Your task to perform on an android device: toggle translation in the chrome app Image 0: 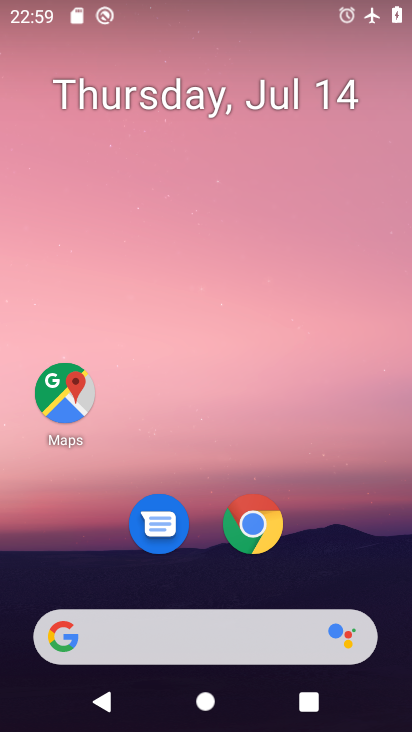
Step 0: drag from (310, 563) to (324, 225)
Your task to perform on an android device: toggle translation in the chrome app Image 1: 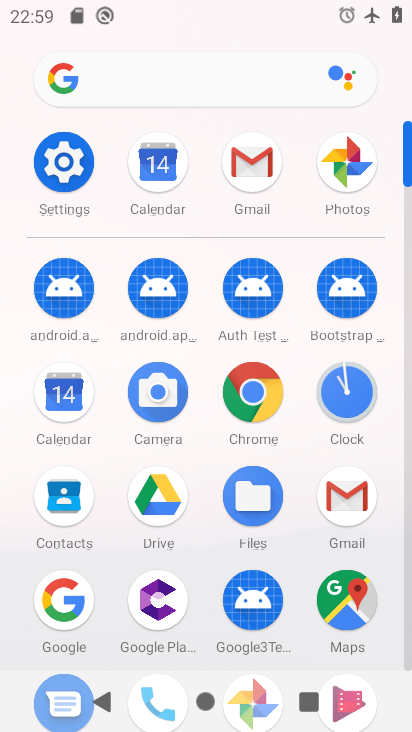
Step 1: click (259, 389)
Your task to perform on an android device: toggle translation in the chrome app Image 2: 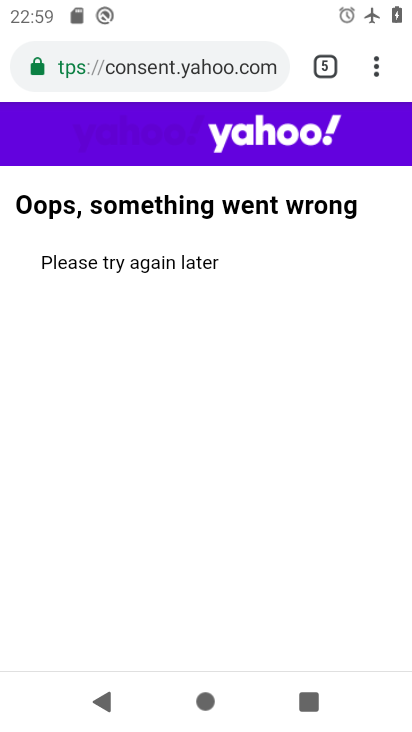
Step 2: click (379, 66)
Your task to perform on an android device: toggle translation in the chrome app Image 3: 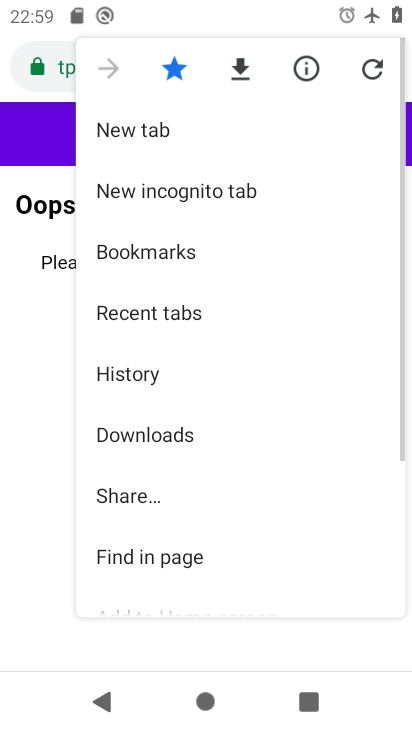
Step 3: drag from (203, 445) to (229, 151)
Your task to perform on an android device: toggle translation in the chrome app Image 4: 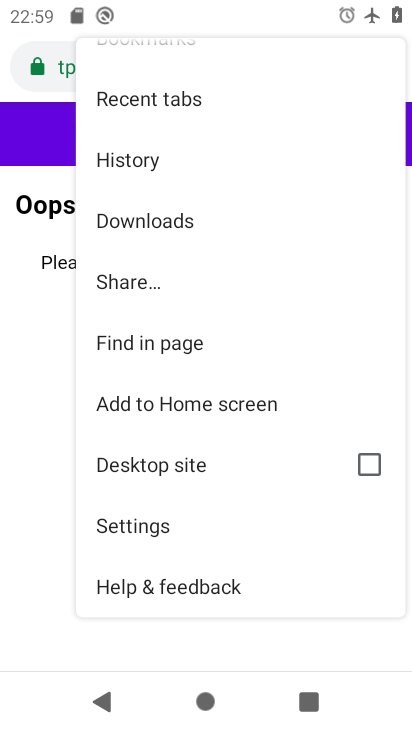
Step 4: click (144, 532)
Your task to perform on an android device: toggle translation in the chrome app Image 5: 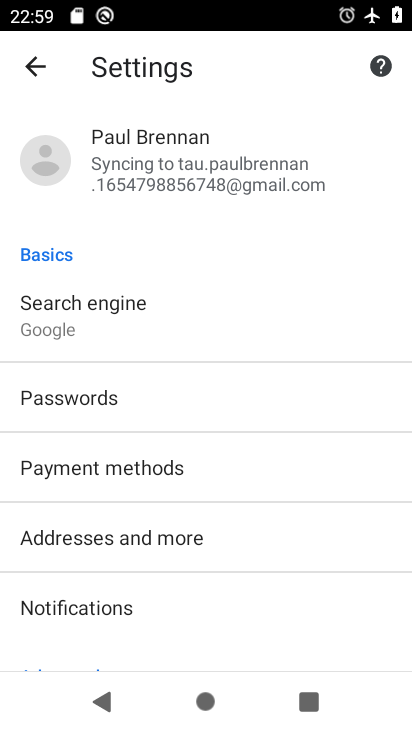
Step 5: drag from (233, 567) to (310, 130)
Your task to perform on an android device: toggle translation in the chrome app Image 6: 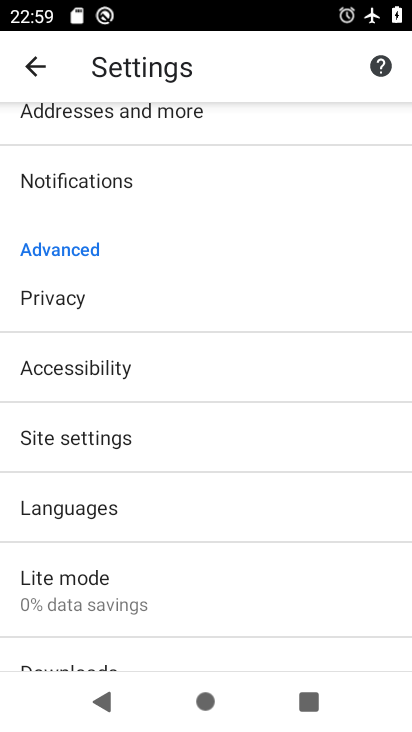
Step 6: click (159, 510)
Your task to perform on an android device: toggle translation in the chrome app Image 7: 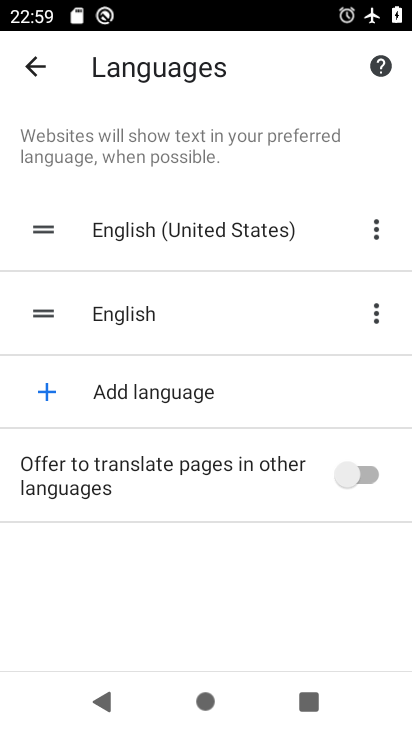
Step 7: click (360, 471)
Your task to perform on an android device: toggle translation in the chrome app Image 8: 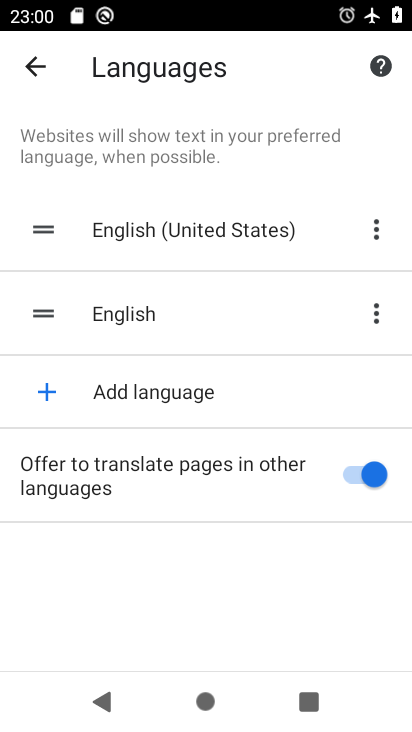
Step 8: task complete